Your task to perform on an android device: delete the emails in spam in the gmail app Image 0: 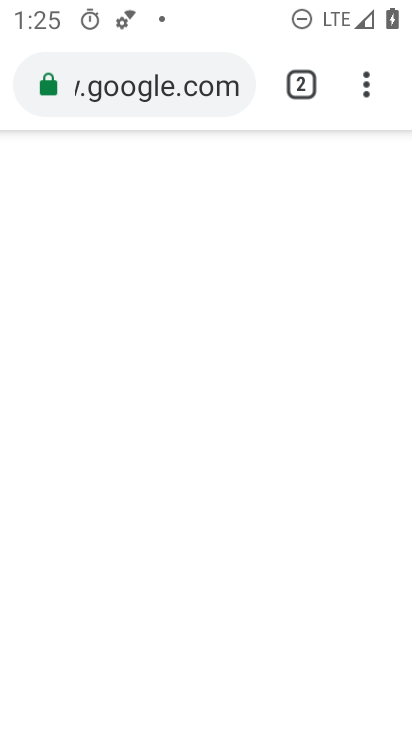
Step 0: press home button
Your task to perform on an android device: delete the emails in spam in the gmail app Image 1: 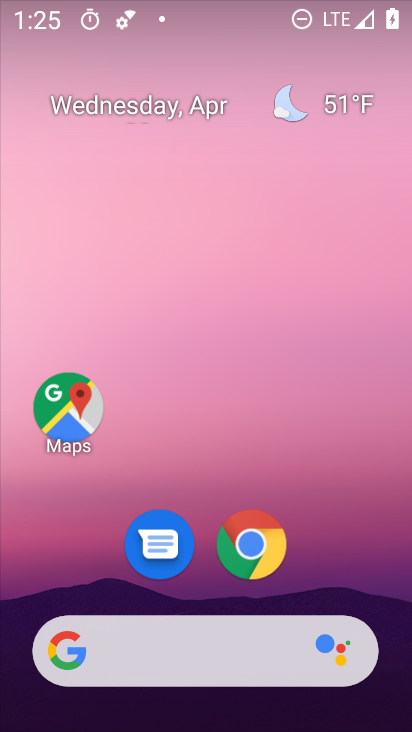
Step 1: drag from (327, 459) to (328, 107)
Your task to perform on an android device: delete the emails in spam in the gmail app Image 2: 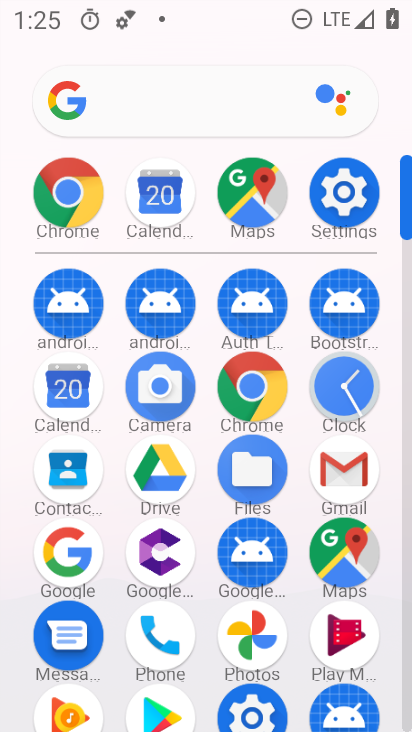
Step 2: click (334, 477)
Your task to perform on an android device: delete the emails in spam in the gmail app Image 3: 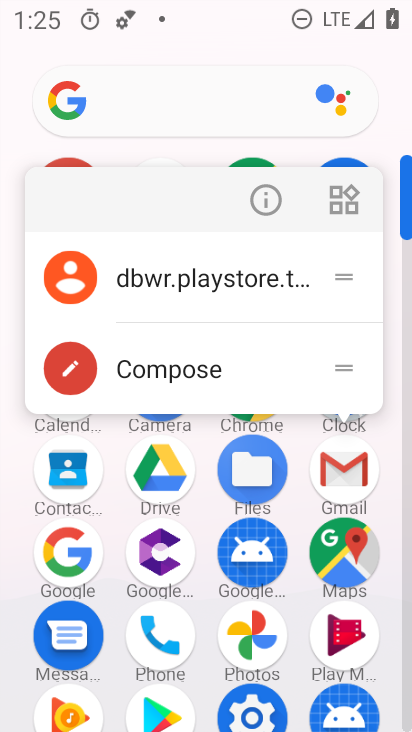
Step 3: click (349, 476)
Your task to perform on an android device: delete the emails in spam in the gmail app Image 4: 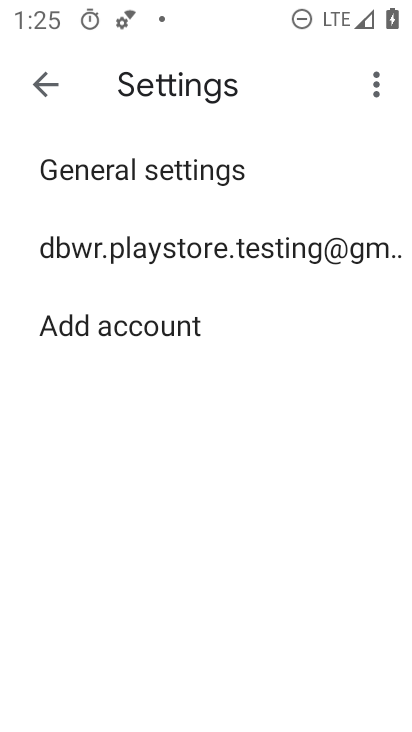
Step 4: click (33, 73)
Your task to perform on an android device: delete the emails in spam in the gmail app Image 5: 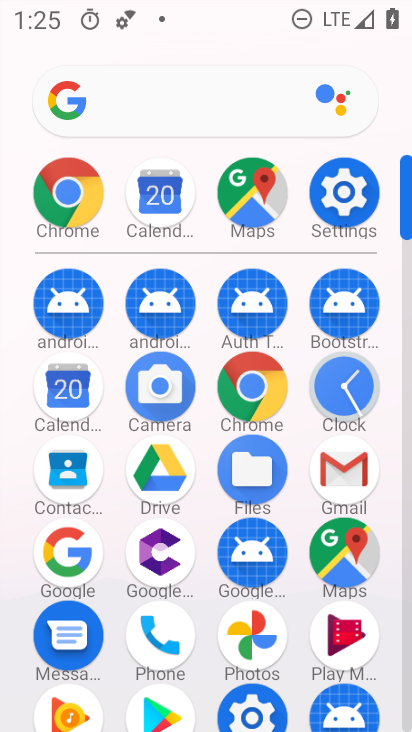
Step 5: click (330, 474)
Your task to perform on an android device: delete the emails in spam in the gmail app Image 6: 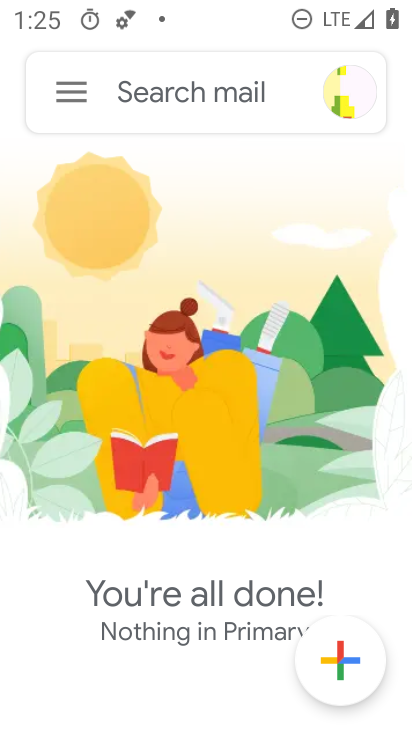
Step 6: task complete